Your task to perform on an android device: Show me popular videos on Youtube Image 0: 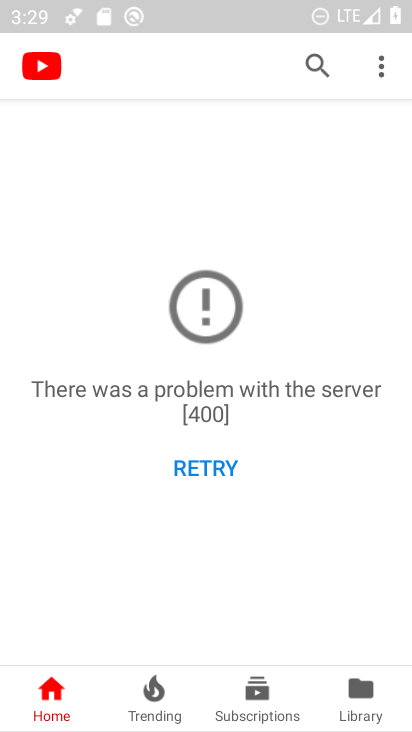
Step 0: task impossible